Your task to perform on an android device: turn on sleep mode Image 0: 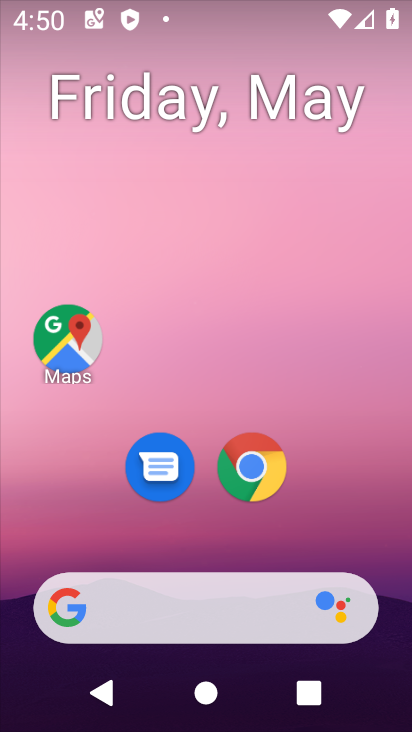
Step 0: drag from (287, 544) to (264, 70)
Your task to perform on an android device: turn on sleep mode Image 1: 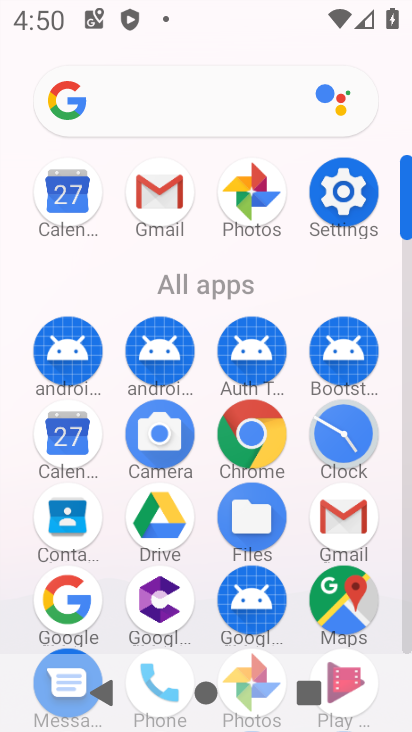
Step 1: click (342, 189)
Your task to perform on an android device: turn on sleep mode Image 2: 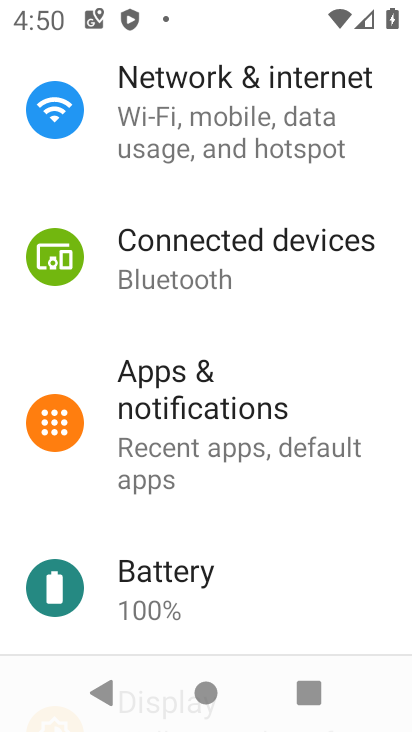
Step 2: drag from (261, 525) to (296, 68)
Your task to perform on an android device: turn on sleep mode Image 3: 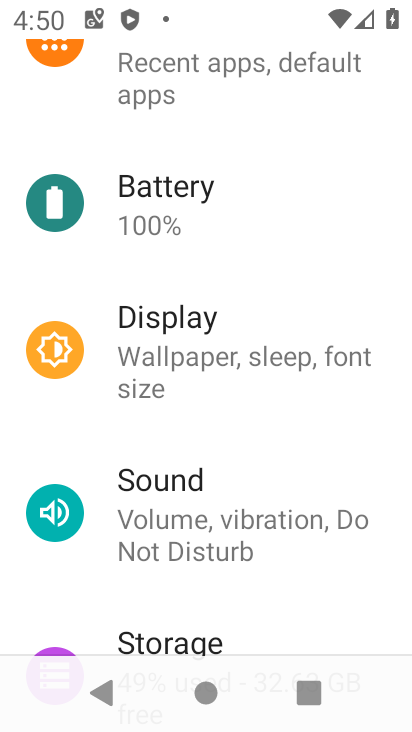
Step 3: click (228, 354)
Your task to perform on an android device: turn on sleep mode Image 4: 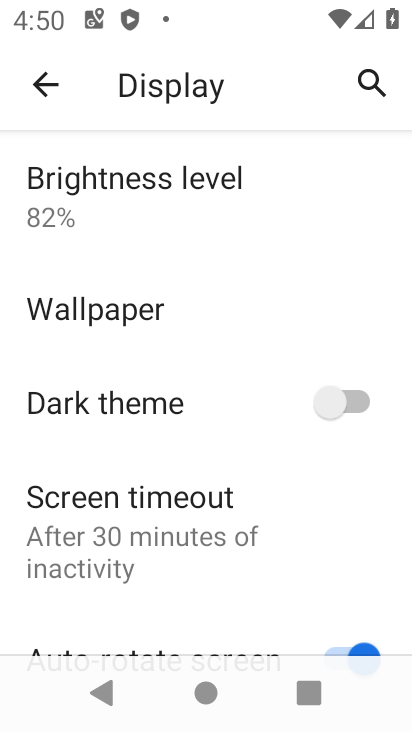
Step 4: drag from (276, 564) to (199, 112)
Your task to perform on an android device: turn on sleep mode Image 5: 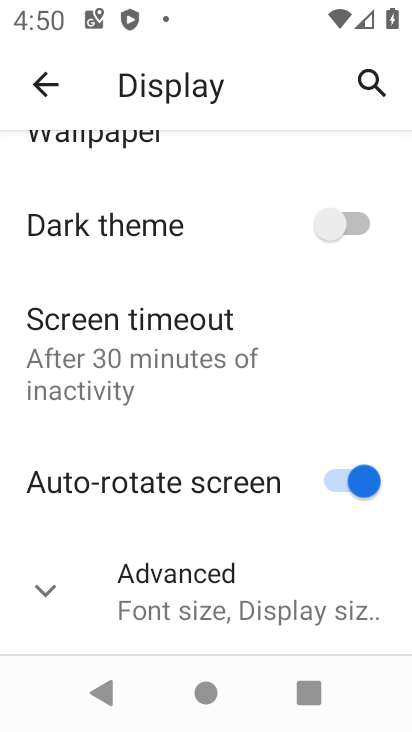
Step 5: click (200, 591)
Your task to perform on an android device: turn on sleep mode Image 6: 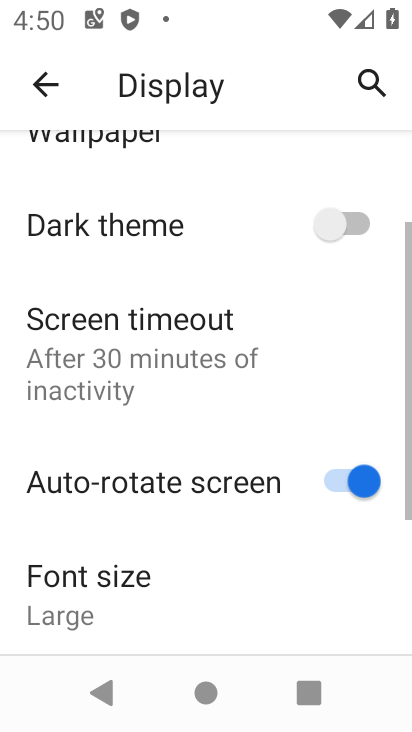
Step 6: task complete